Your task to perform on an android device: Open Yahoo.com Image 0: 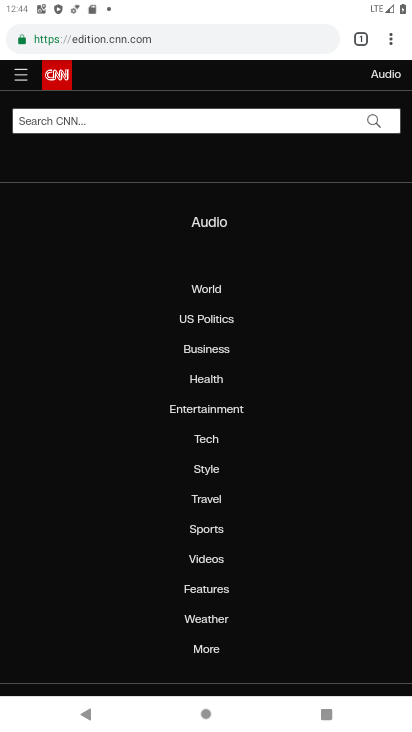
Step 0: click (92, 34)
Your task to perform on an android device: Open Yahoo.com Image 1: 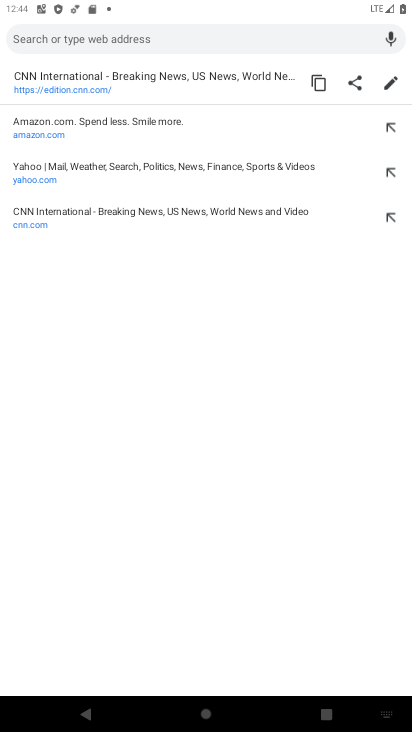
Step 1: click (35, 179)
Your task to perform on an android device: Open Yahoo.com Image 2: 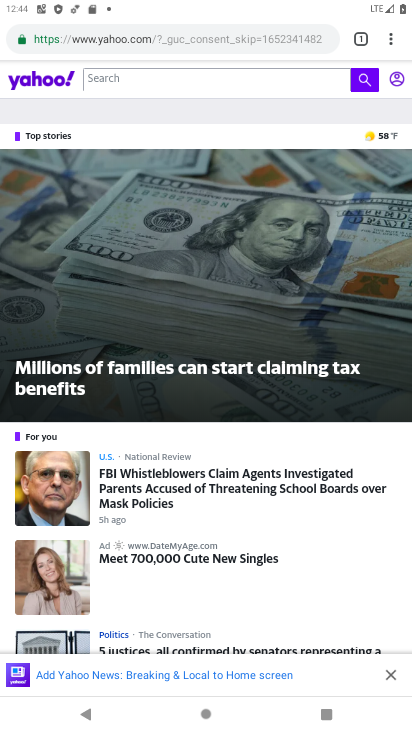
Step 2: task complete